Your task to perform on an android device: turn on improve location accuracy Image 0: 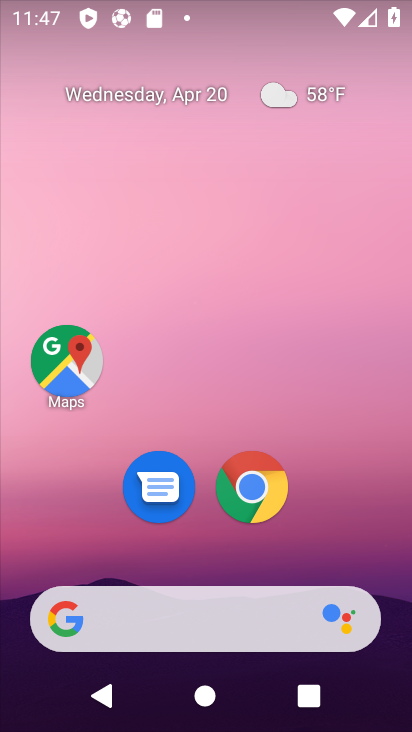
Step 0: drag from (369, 487) to (370, 11)
Your task to perform on an android device: turn on improve location accuracy Image 1: 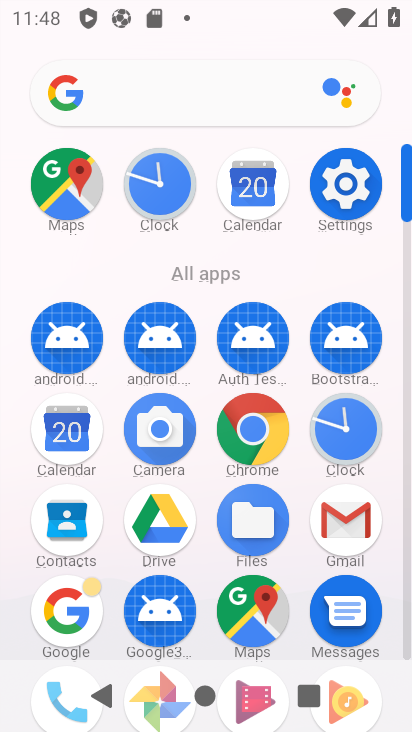
Step 1: click (350, 187)
Your task to perform on an android device: turn on improve location accuracy Image 2: 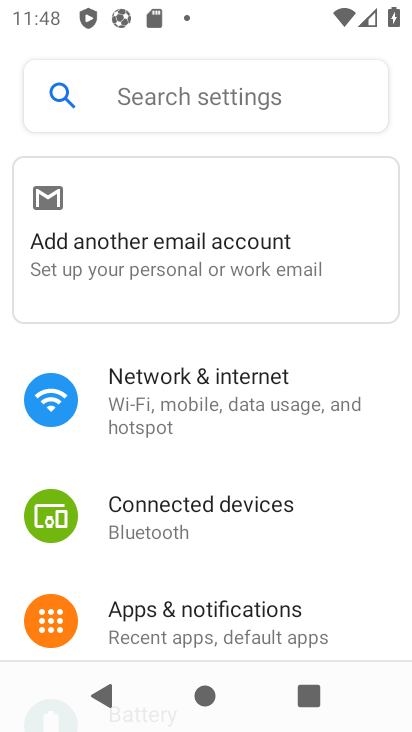
Step 2: drag from (351, 483) to (326, 210)
Your task to perform on an android device: turn on improve location accuracy Image 3: 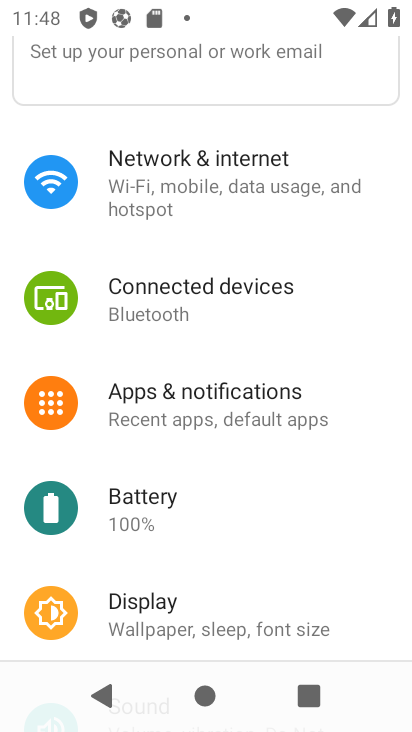
Step 3: drag from (312, 507) to (296, 189)
Your task to perform on an android device: turn on improve location accuracy Image 4: 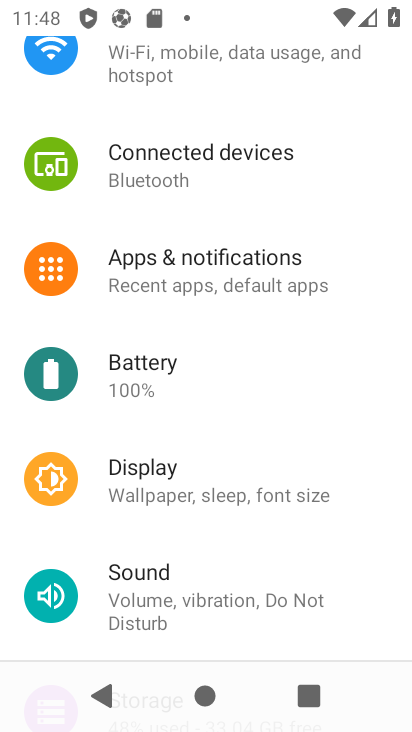
Step 4: drag from (280, 532) to (258, 196)
Your task to perform on an android device: turn on improve location accuracy Image 5: 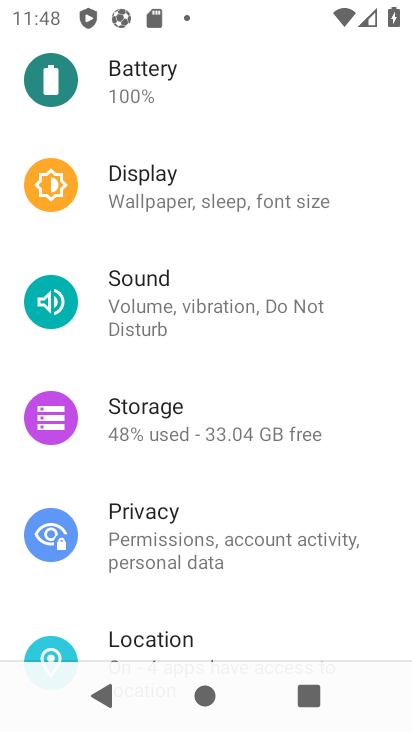
Step 5: click (170, 642)
Your task to perform on an android device: turn on improve location accuracy Image 6: 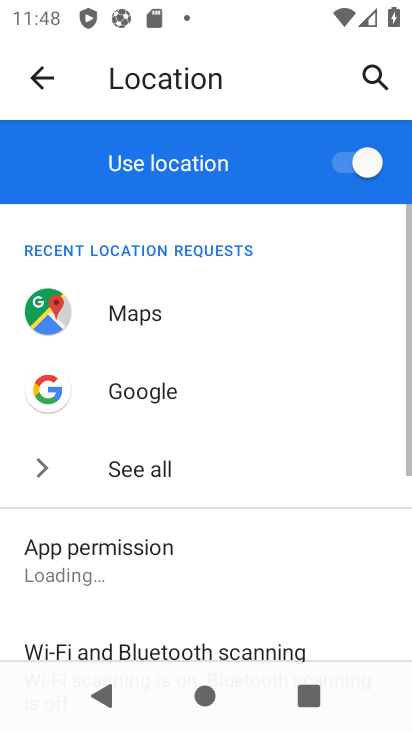
Step 6: drag from (228, 537) to (224, 225)
Your task to perform on an android device: turn on improve location accuracy Image 7: 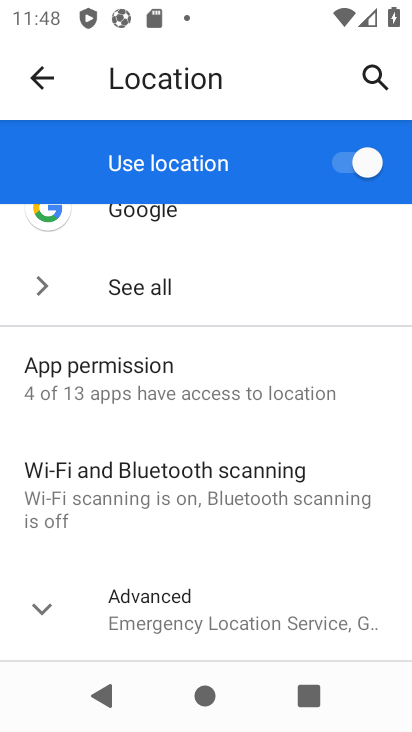
Step 7: click (40, 607)
Your task to perform on an android device: turn on improve location accuracy Image 8: 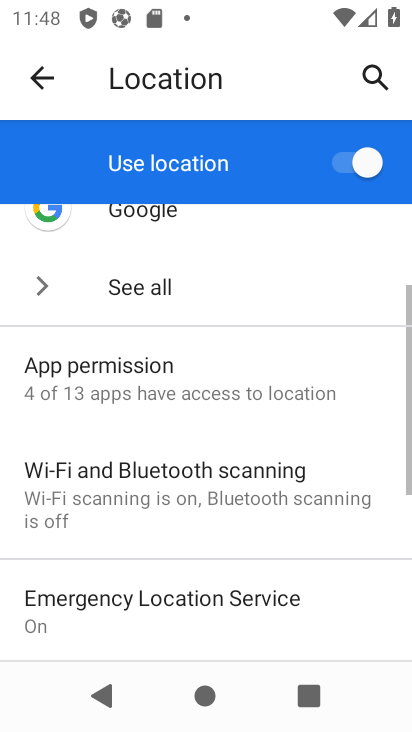
Step 8: drag from (222, 580) to (209, 279)
Your task to perform on an android device: turn on improve location accuracy Image 9: 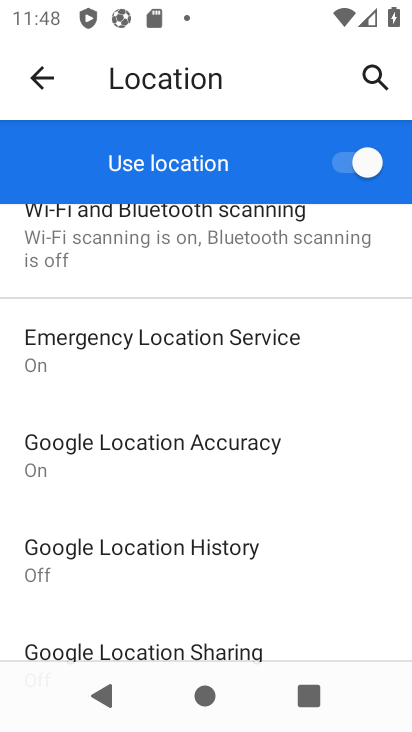
Step 9: click (120, 451)
Your task to perform on an android device: turn on improve location accuracy Image 10: 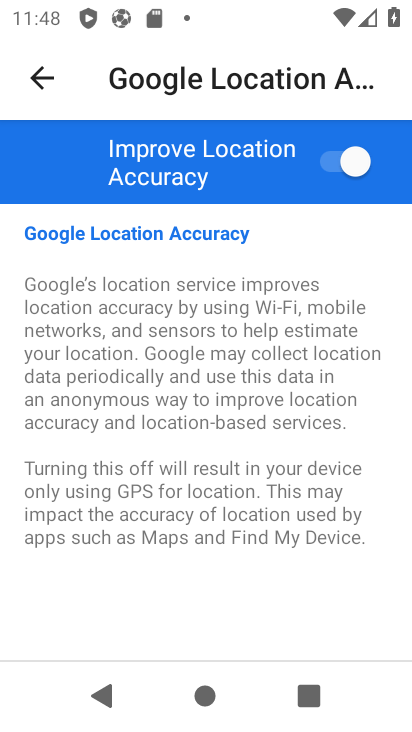
Step 10: task complete